Your task to perform on an android device: Open location settings Image 0: 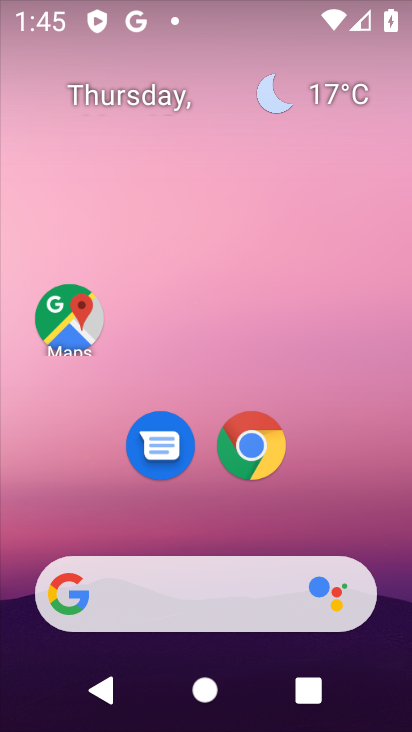
Step 0: drag from (353, 466) to (231, 10)
Your task to perform on an android device: Open location settings Image 1: 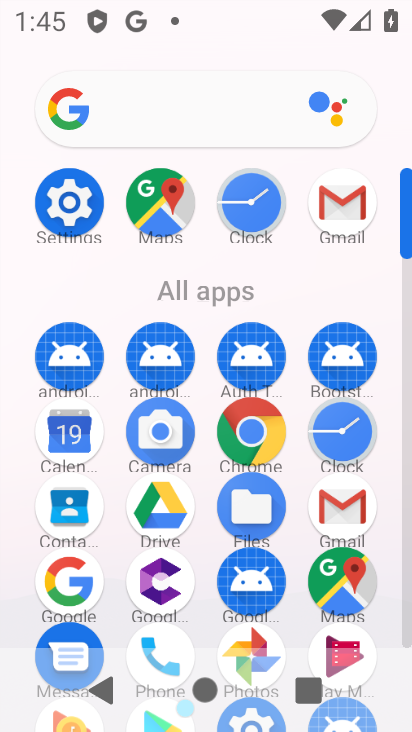
Step 1: click (68, 192)
Your task to perform on an android device: Open location settings Image 2: 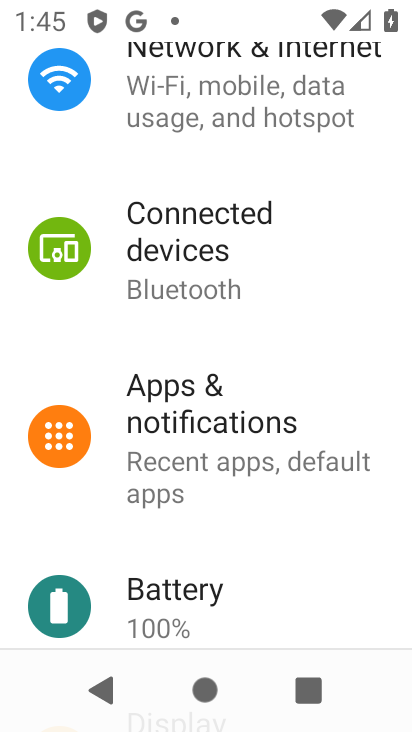
Step 2: drag from (288, 306) to (288, 618)
Your task to perform on an android device: Open location settings Image 3: 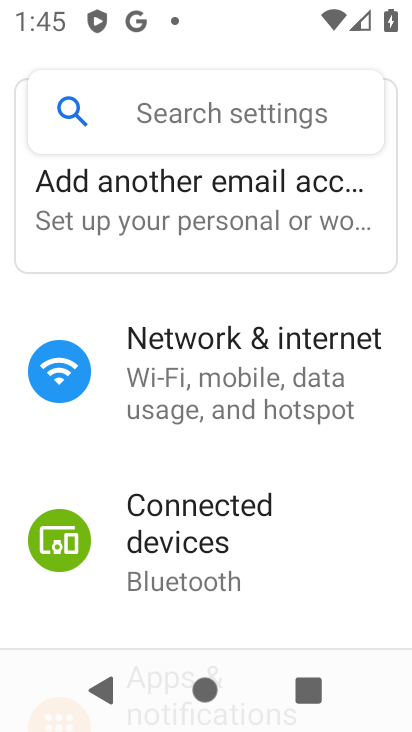
Step 3: drag from (311, 474) to (298, 279)
Your task to perform on an android device: Open location settings Image 4: 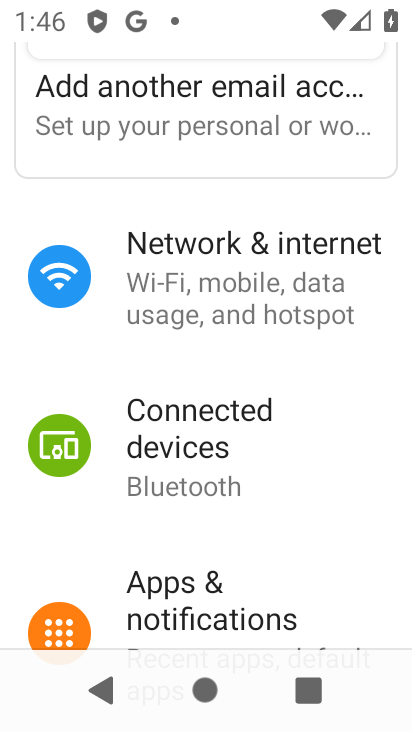
Step 4: drag from (304, 514) to (237, 230)
Your task to perform on an android device: Open location settings Image 5: 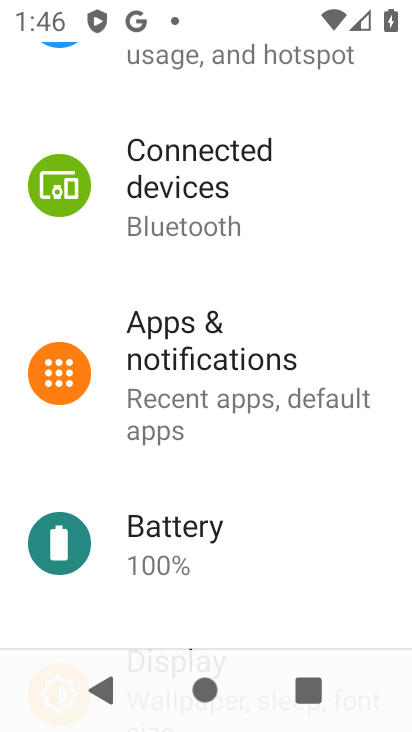
Step 5: drag from (288, 465) to (259, 201)
Your task to perform on an android device: Open location settings Image 6: 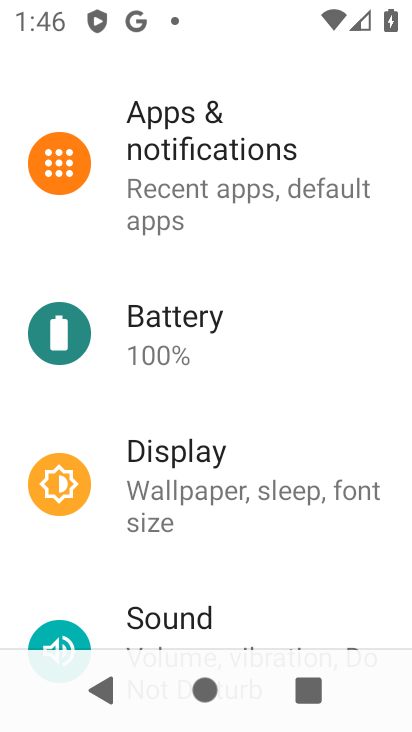
Step 6: drag from (274, 322) to (243, 16)
Your task to perform on an android device: Open location settings Image 7: 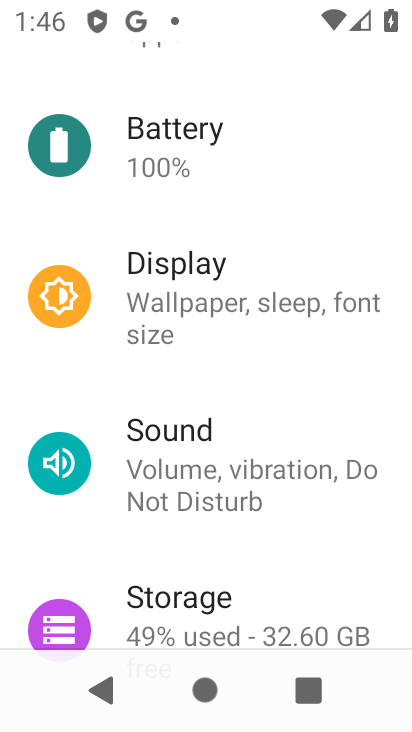
Step 7: drag from (277, 384) to (259, 128)
Your task to perform on an android device: Open location settings Image 8: 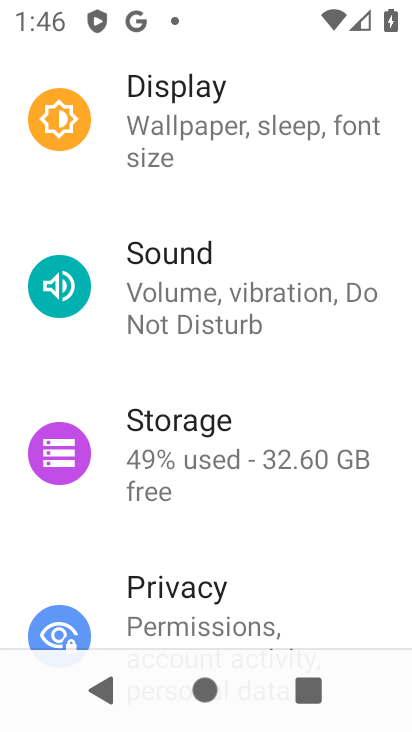
Step 8: drag from (264, 484) to (210, 93)
Your task to perform on an android device: Open location settings Image 9: 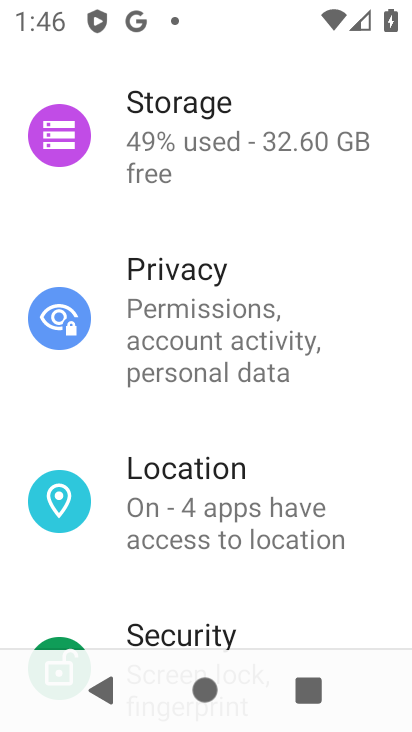
Step 9: drag from (271, 446) to (226, 134)
Your task to perform on an android device: Open location settings Image 10: 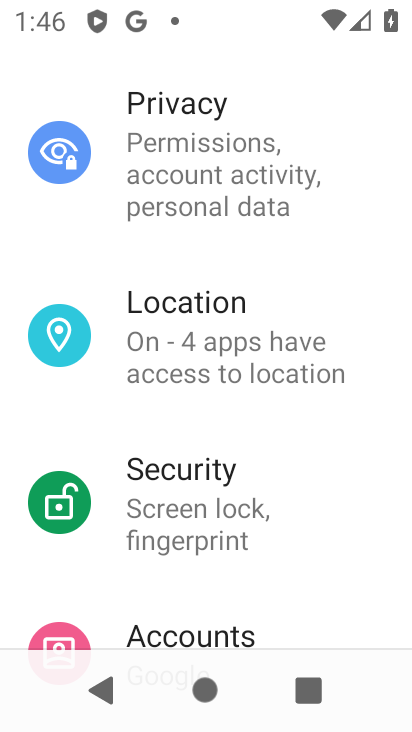
Step 10: click (190, 314)
Your task to perform on an android device: Open location settings Image 11: 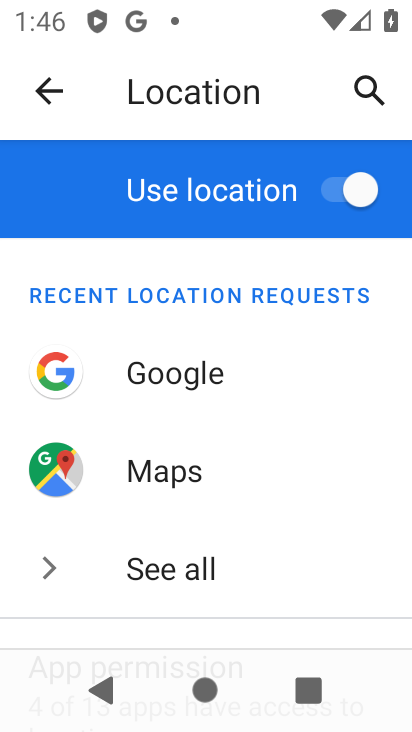
Step 11: task complete